Your task to perform on an android device: make emails show in primary in the gmail app Image 0: 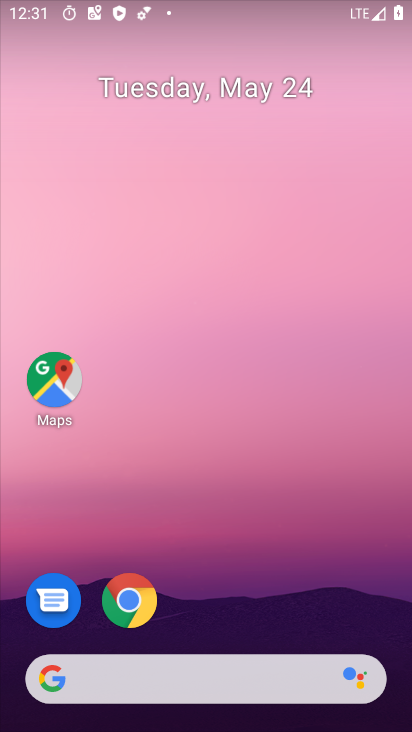
Step 0: drag from (317, 596) to (190, 0)
Your task to perform on an android device: make emails show in primary in the gmail app Image 1: 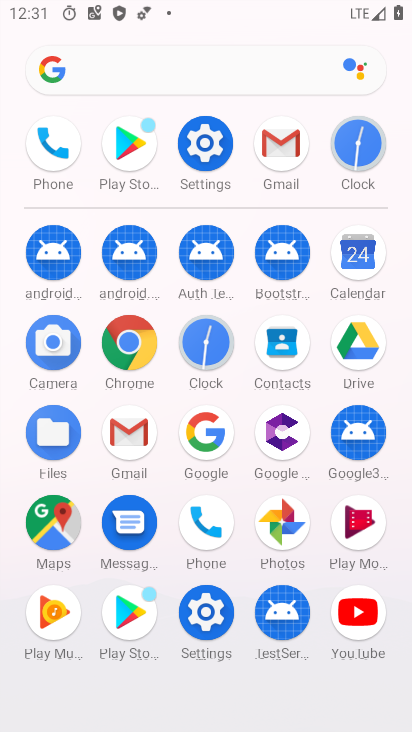
Step 1: click (273, 149)
Your task to perform on an android device: make emails show in primary in the gmail app Image 2: 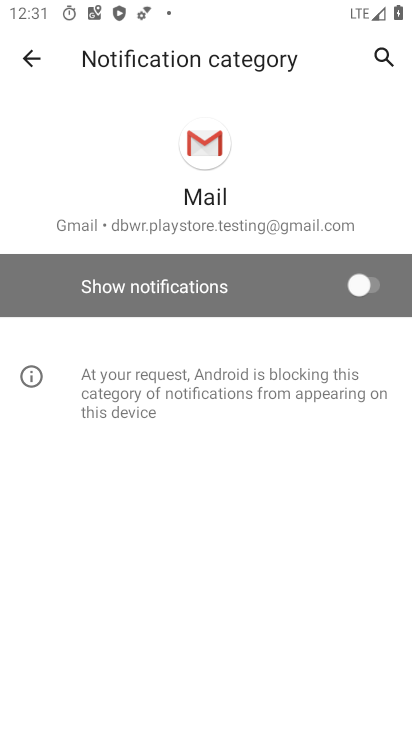
Step 2: click (29, 57)
Your task to perform on an android device: make emails show in primary in the gmail app Image 3: 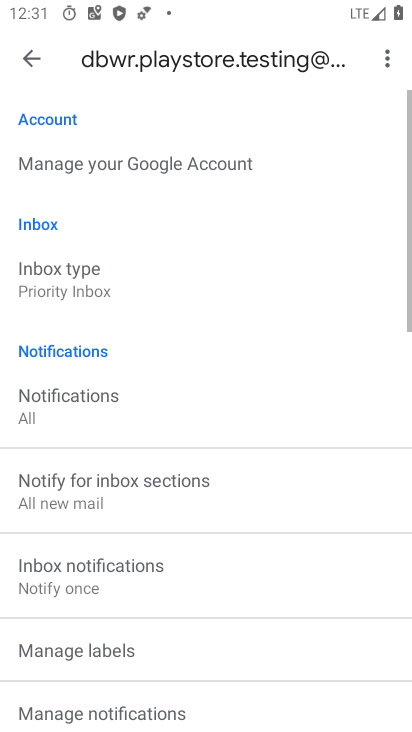
Step 3: click (29, 57)
Your task to perform on an android device: make emails show in primary in the gmail app Image 4: 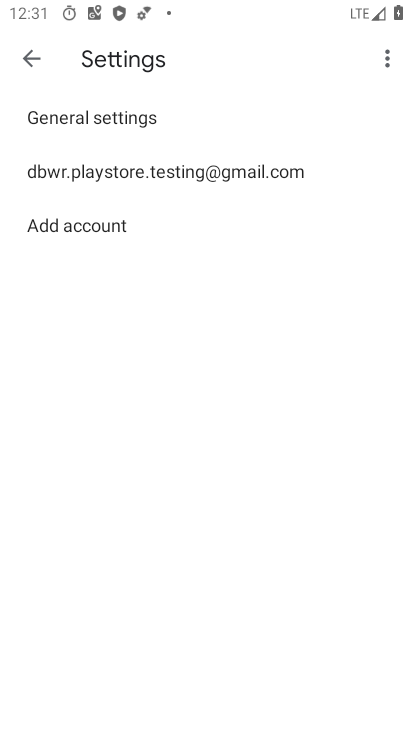
Step 4: click (105, 169)
Your task to perform on an android device: make emails show in primary in the gmail app Image 5: 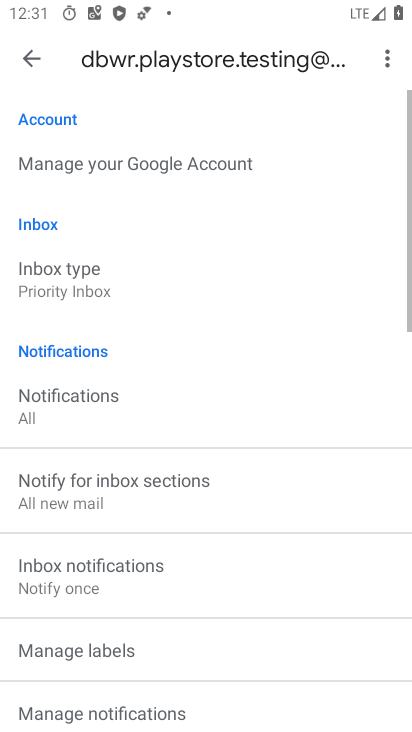
Step 5: click (68, 293)
Your task to perform on an android device: make emails show in primary in the gmail app Image 6: 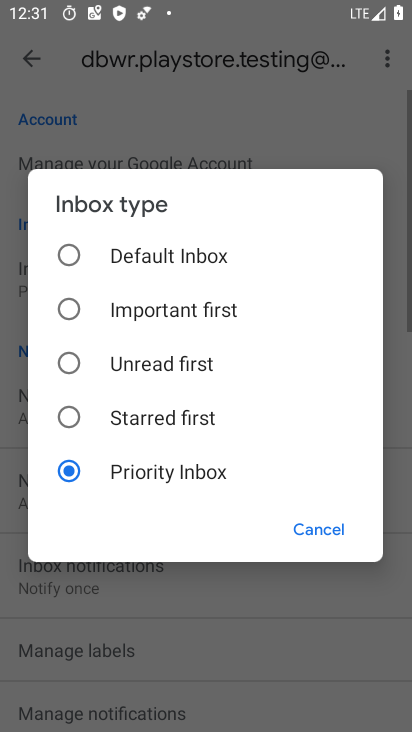
Step 6: click (98, 253)
Your task to perform on an android device: make emails show in primary in the gmail app Image 7: 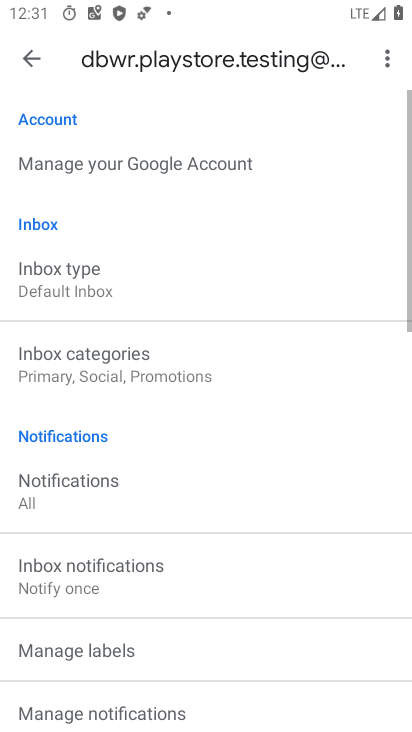
Step 7: click (72, 377)
Your task to perform on an android device: make emails show in primary in the gmail app Image 8: 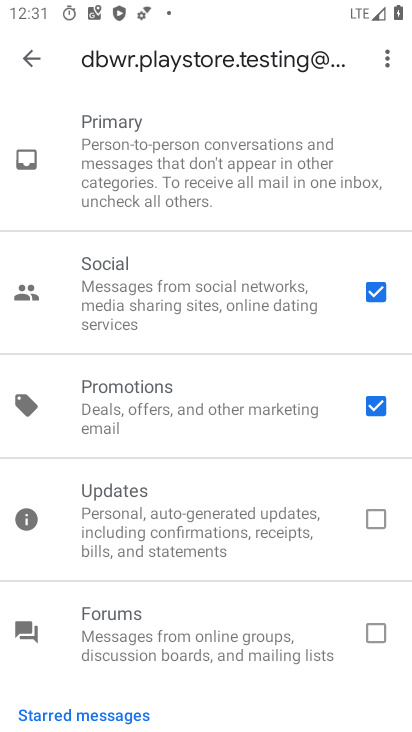
Step 8: task complete